Your task to perform on an android device: Search for Mexican restaurants on Maps Image 0: 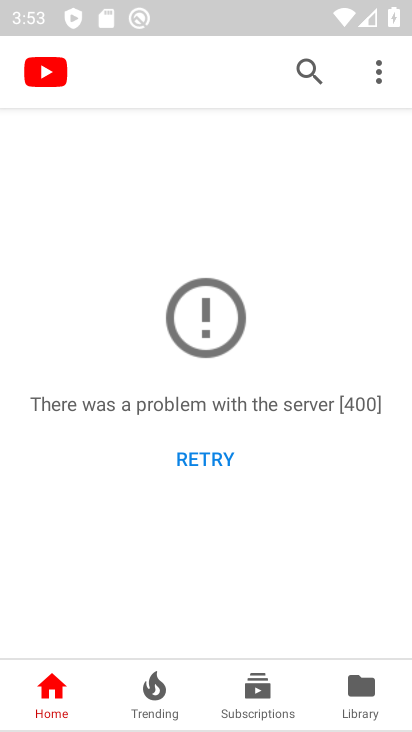
Step 0: press home button
Your task to perform on an android device: Search for Mexican restaurants on Maps Image 1: 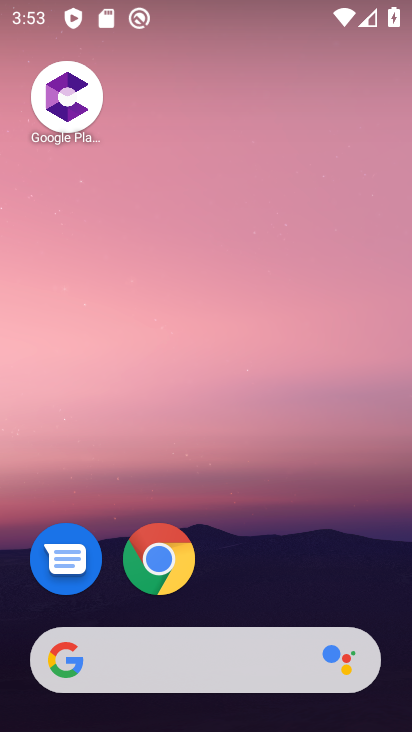
Step 1: drag from (313, 572) to (293, 88)
Your task to perform on an android device: Search for Mexican restaurants on Maps Image 2: 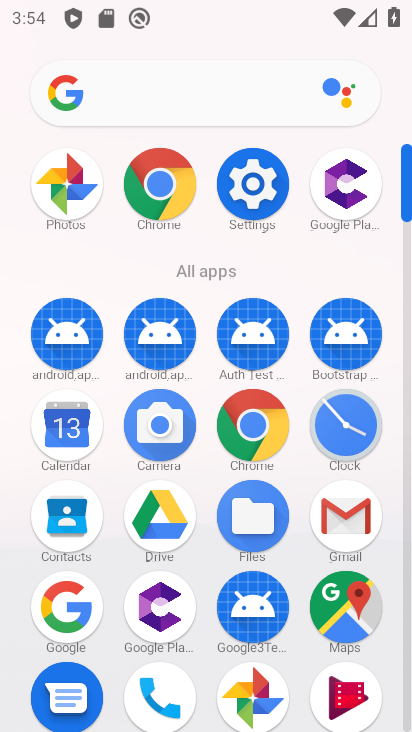
Step 2: click (360, 590)
Your task to perform on an android device: Search for Mexican restaurants on Maps Image 3: 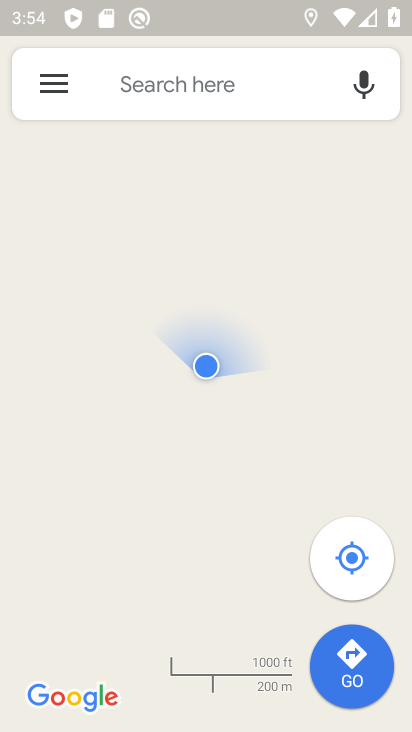
Step 3: click (197, 91)
Your task to perform on an android device: Search for Mexican restaurants on Maps Image 4: 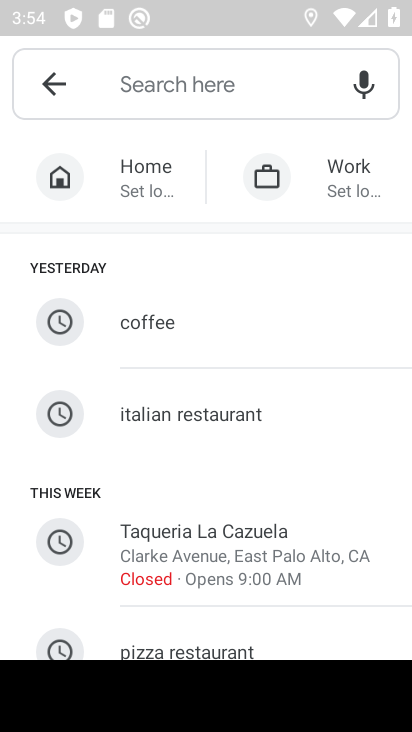
Step 4: type "Mexican restaurants"
Your task to perform on an android device: Search for Mexican restaurants on Maps Image 5: 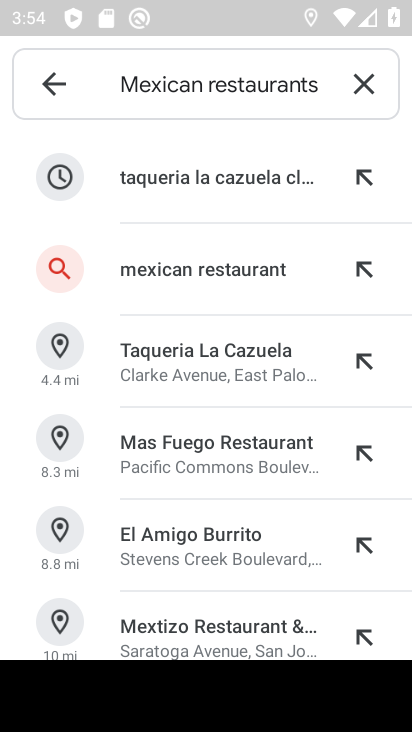
Step 5: click (270, 270)
Your task to perform on an android device: Search for Mexican restaurants on Maps Image 6: 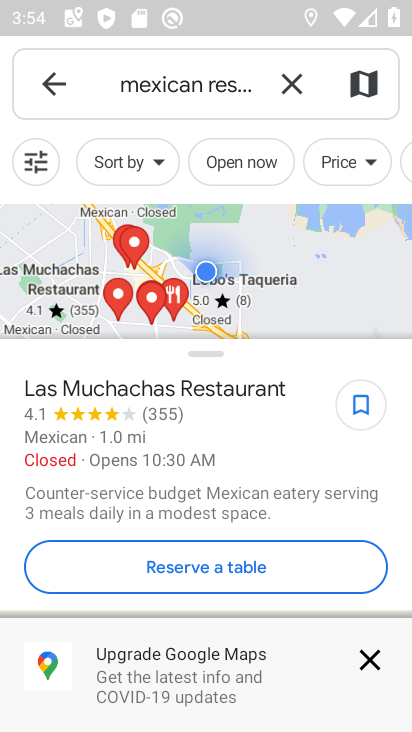
Step 6: task complete